Your task to perform on an android device: Open the Play Movies app and select the watchlist tab. Image 0: 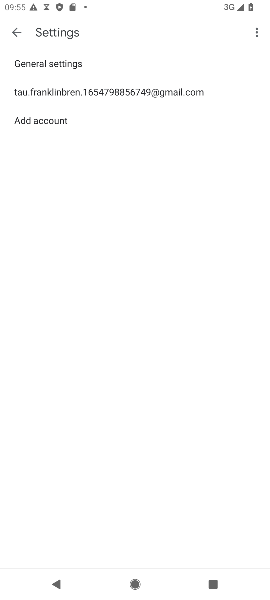
Step 0: press home button
Your task to perform on an android device: Open the Play Movies app and select the watchlist tab. Image 1: 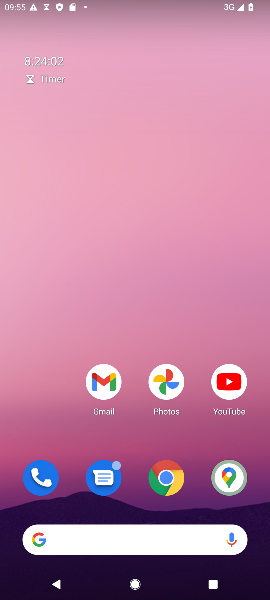
Step 1: task complete